Your task to perform on an android device: Open Reddit.com Image 0: 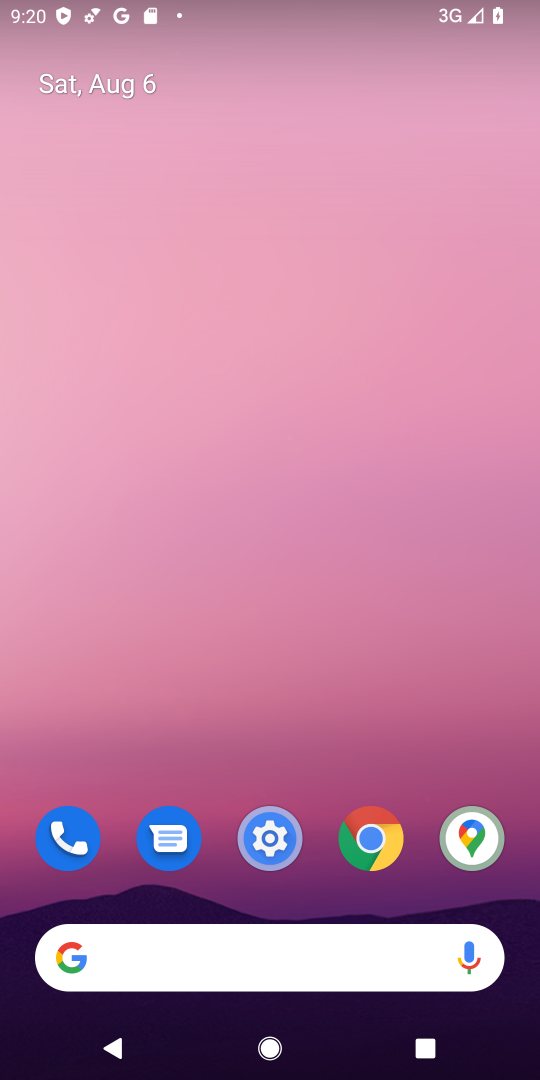
Step 0: click (363, 828)
Your task to perform on an android device: Open Reddit.com Image 1: 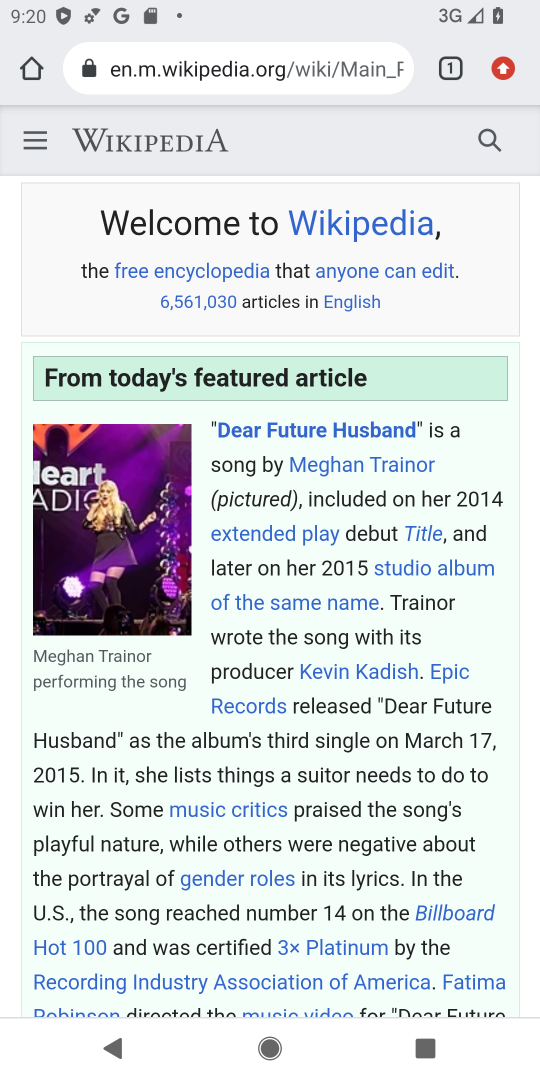
Step 1: click (344, 69)
Your task to perform on an android device: Open Reddit.com Image 2: 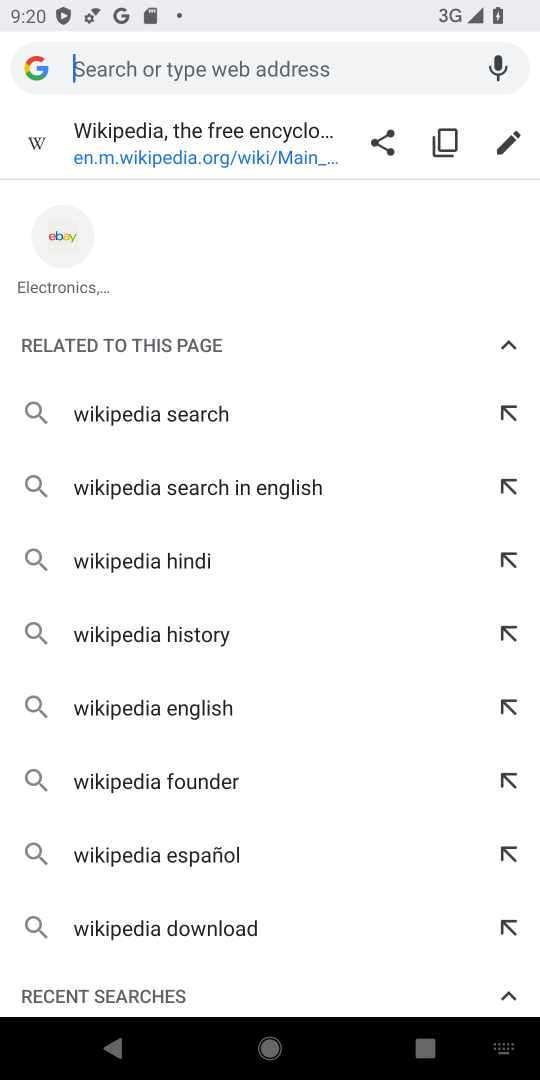
Step 2: type "reddit.com"
Your task to perform on an android device: Open Reddit.com Image 3: 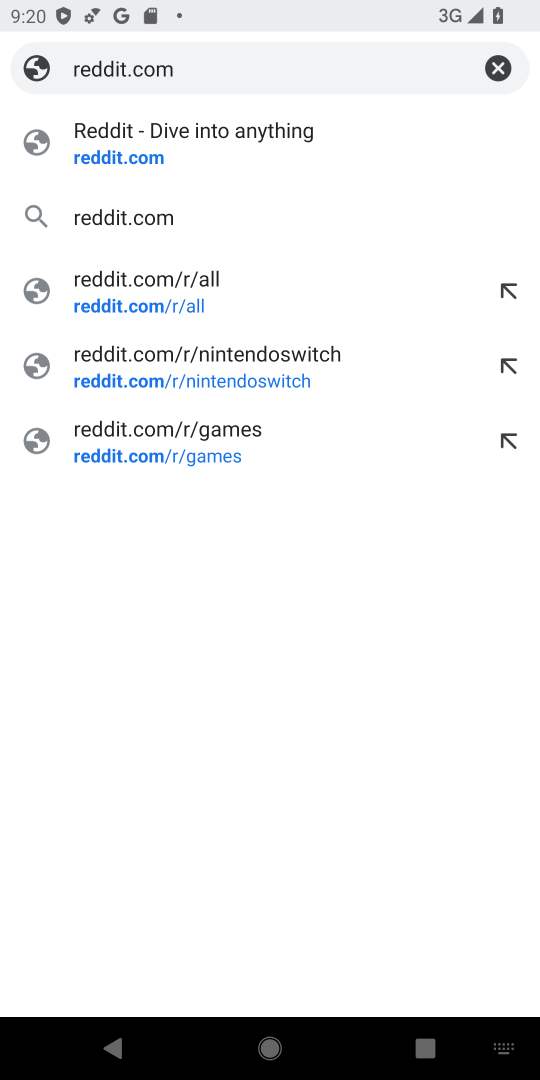
Step 3: click (207, 128)
Your task to perform on an android device: Open Reddit.com Image 4: 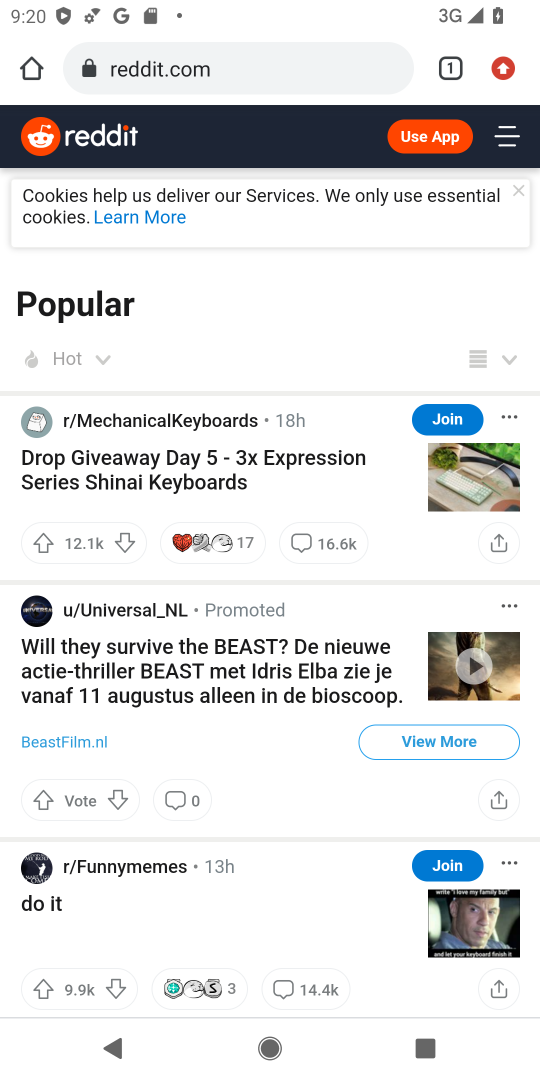
Step 4: task complete